Your task to perform on an android device: Open Google Maps and go to "Timeline" Image 0: 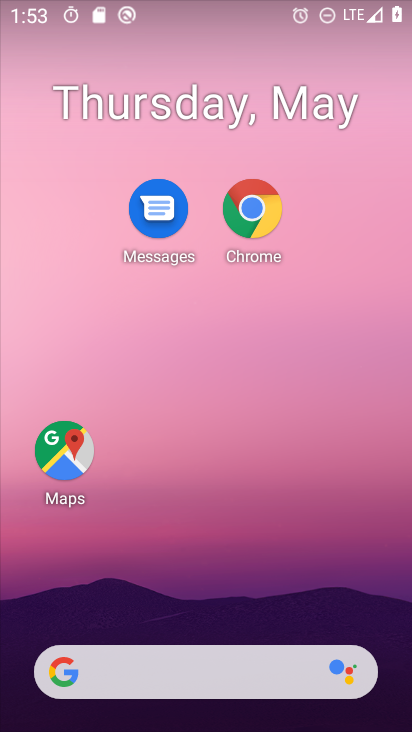
Step 0: click (57, 455)
Your task to perform on an android device: Open Google Maps and go to "Timeline" Image 1: 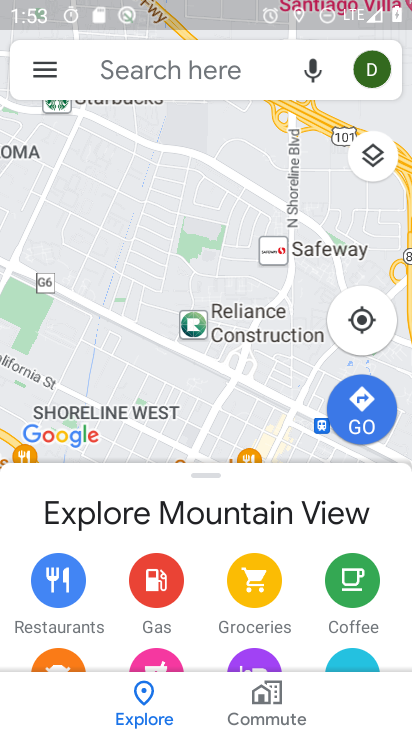
Step 1: click (41, 74)
Your task to perform on an android device: Open Google Maps and go to "Timeline" Image 2: 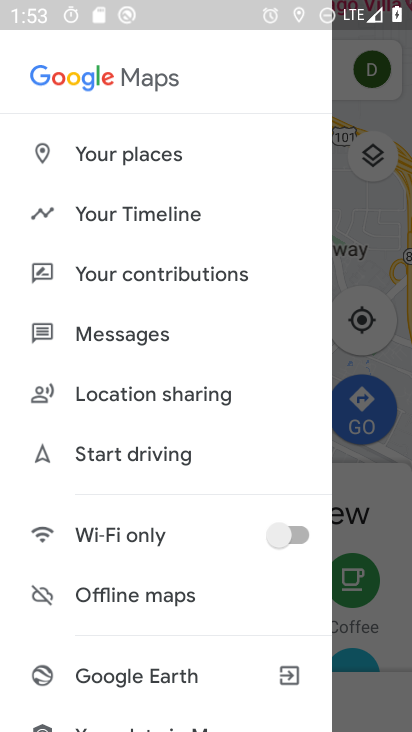
Step 2: click (129, 215)
Your task to perform on an android device: Open Google Maps and go to "Timeline" Image 3: 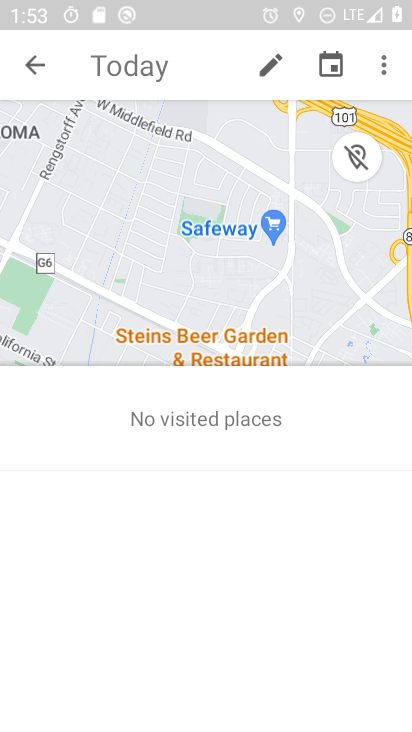
Step 3: task complete